Your task to perform on an android device: Open Youtube and go to "Your channel" Image 0: 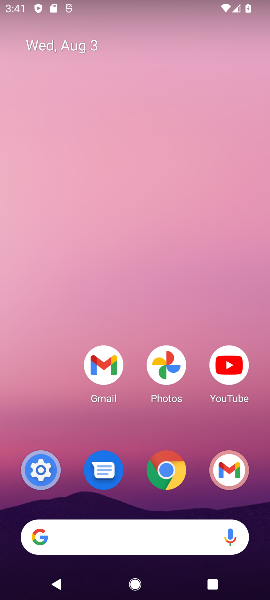
Step 0: press back button
Your task to perform on an android device: Open Youtube and go to "Your channel" Image 1: 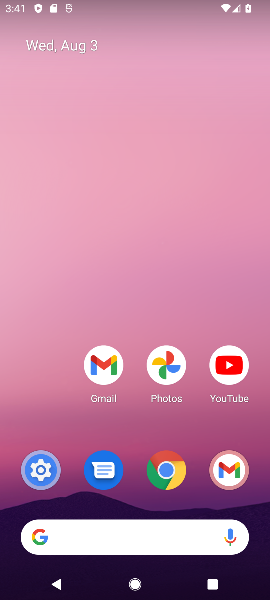
Step 1: press back button
Your task to perform on an android device: Open Youtube and go to "Your channel" Image 2: 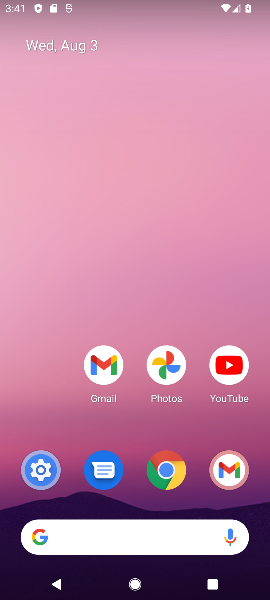
Step 2: press back button
Your task to perform on an android device: Open Youtube and go to "Your channel" Image 3: 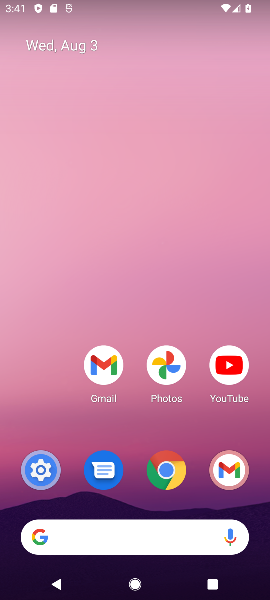
Step 3: click (231, 367)
Your task to perform on an android device: Open Youtube and go to "Your channel" Image 4: 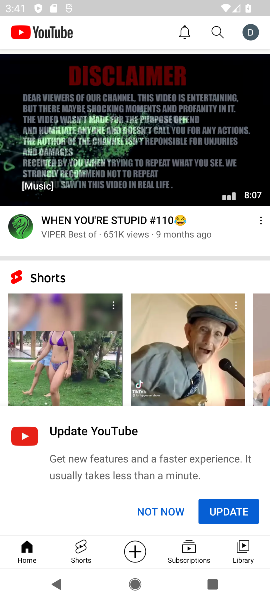
Step 4: click (252, 35)
Your task to perform on an android device: Open Youtube and go to "Your channel" Image 5: 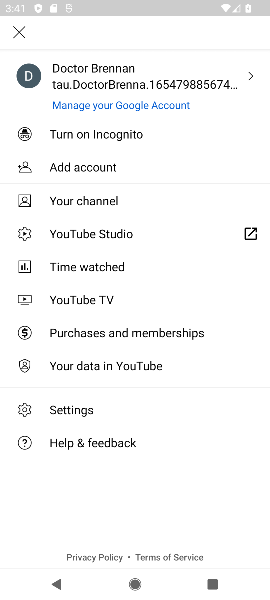
Step 5: click (92, 202)
Your task to perform on an android device: Open Youtube and go to "Your channel" Image 6: 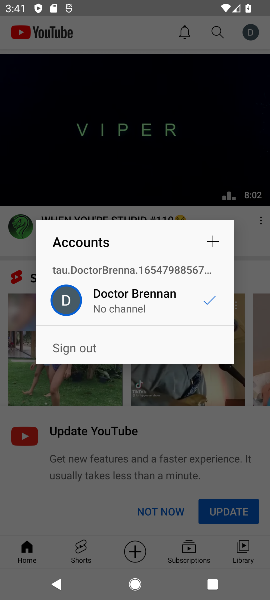
Step 6: click (127, 434)
Your task to perform on an android device: Open Youtube and go to "Your channel" Image 7: 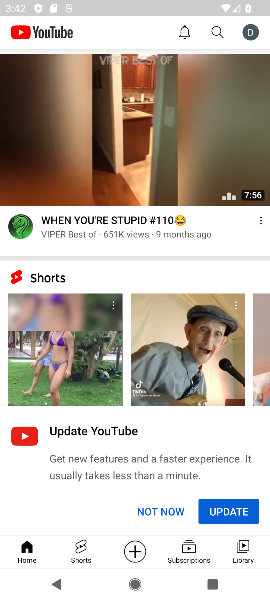
Step 7: click (245, 33)
Your task to perform on an android device: Open Youtube and go to "Your channel" Image 8: 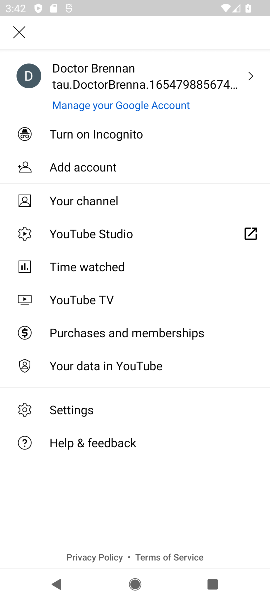
Step 8: click (102, 199)
Your task to perform on an android device: Open Youtube and go to "Your channel" Image 9: 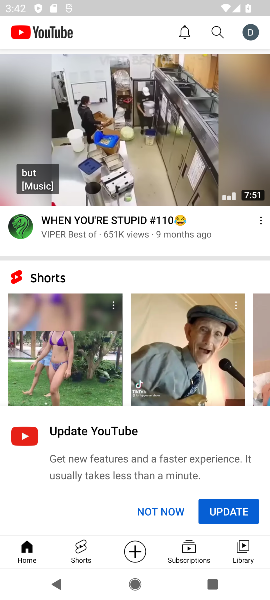
Step 9: task complete